Your task to perform on an android device: allow cookies in the chrome app Image 0: 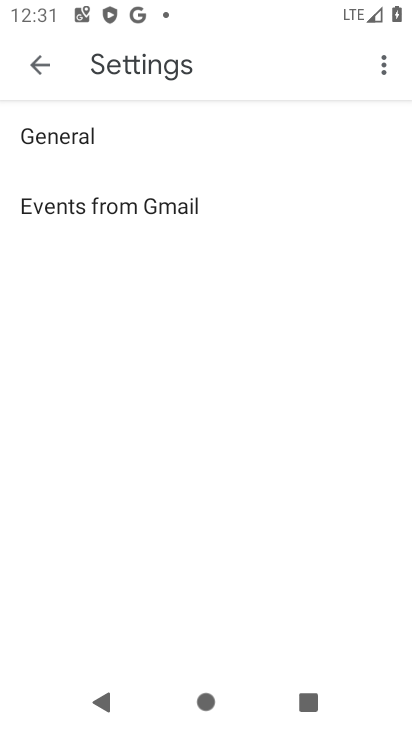
Step 0: press back button
Your task to perform on an android device: allow cookies in the chrome app Image 1: 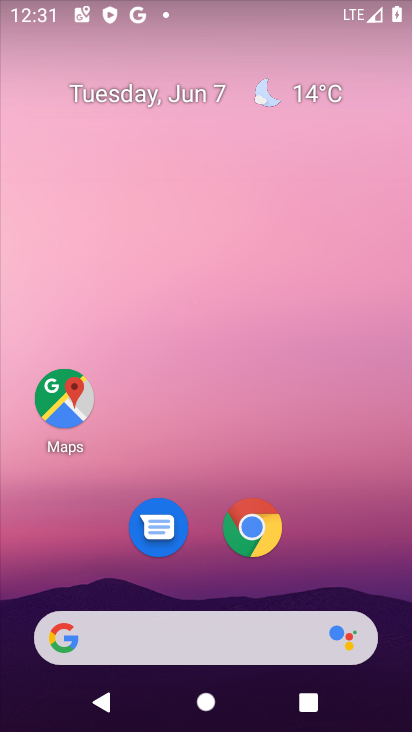
Step 1: drag from (358, 481) to (216, 0)
Your task to perform on an android device: allow cookies in the chrome app Image 2: 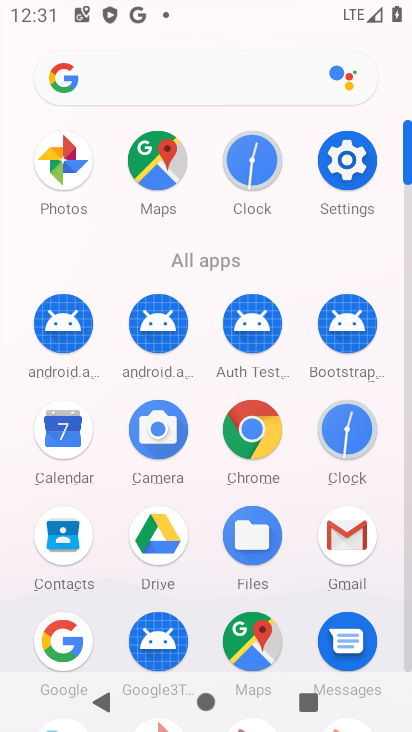
Step 2: drag from (19, 552) to (10, 259)
Your task to perform on an android device: allow cookies in the chrome app Image 3: 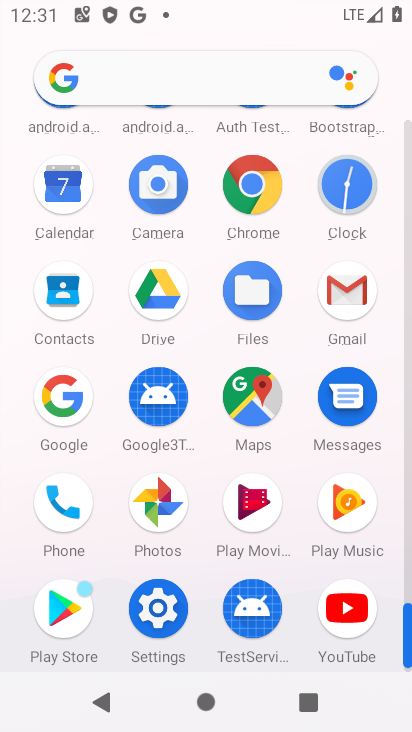
Step 3: click (250, 177)
Your task to perform on an android device: allow cookies in the chrome app Image 4: 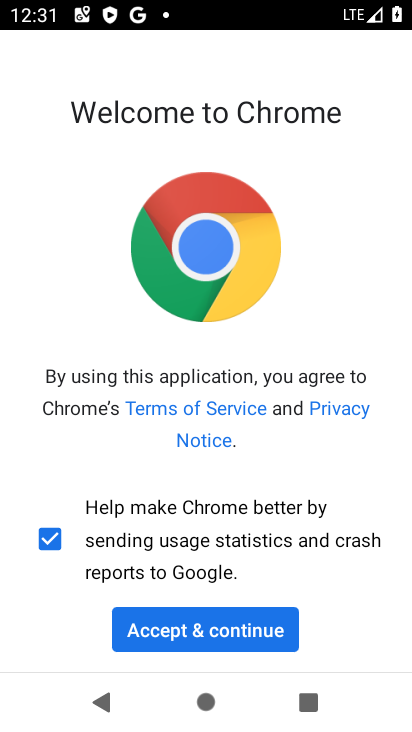
Step 4: click (173, 636)
Your task to perform on an android device: allow cookies in the chrome app Image 5: 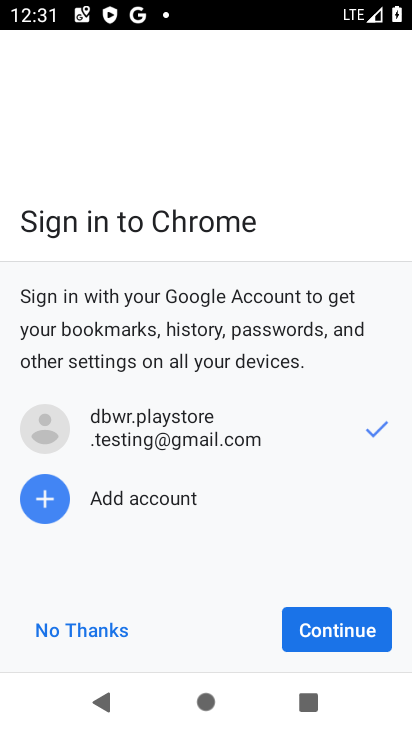
Step 5: click (319, 627)
Your task to perform on an android device: allow cookies in the chrome app Image 6: 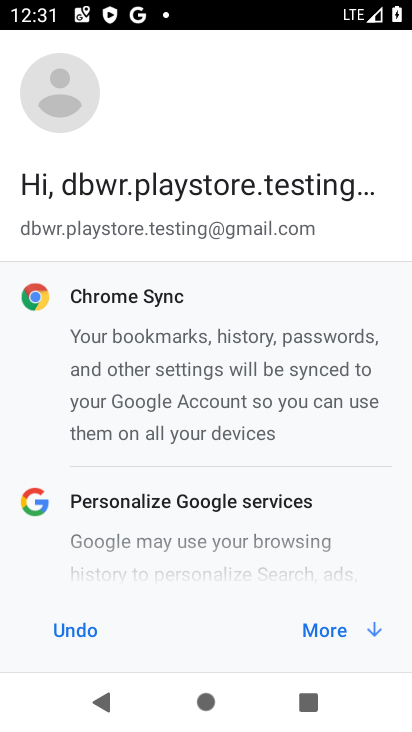
Step 6: click (332, 627)
Your task to perform on an android device: allow cookies in the chrome app Image 7: 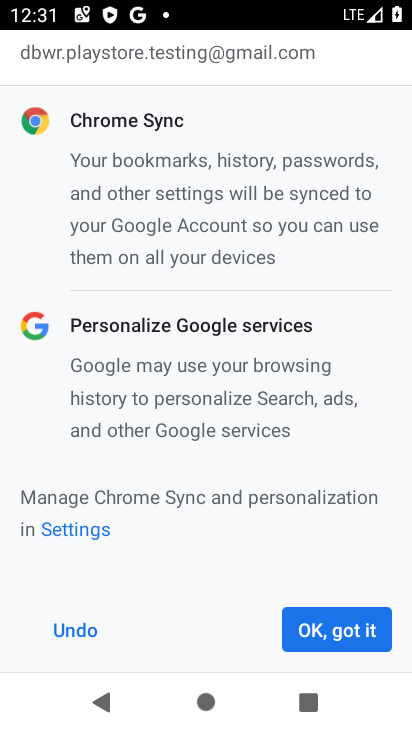
Step 7: click (332, 627)
Your task to perform on an android device: allow cookies in the chrome app Image 8: 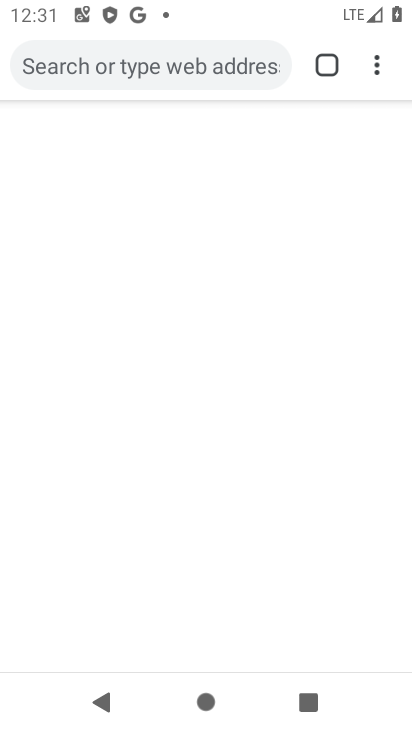
Step 8: drag from (373, 56) to (163, 549)
Your task to perform on an android device: allow cookies in the chrome app Image 9: 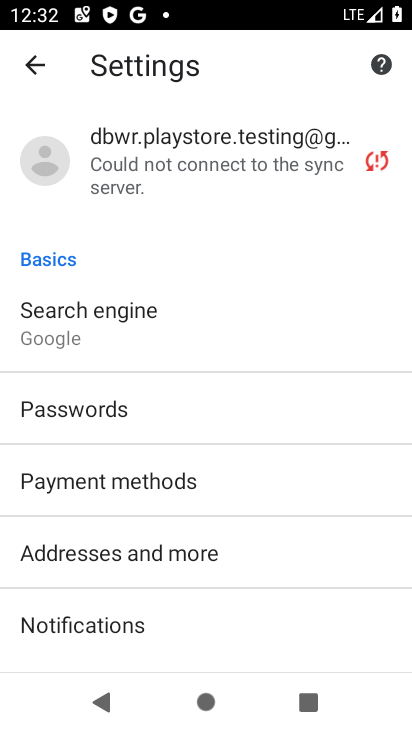
Step 9: drag from (265, 574) to (221, 245)
Your task to perform on an android device: allow cookies in the chrome app Image 10: 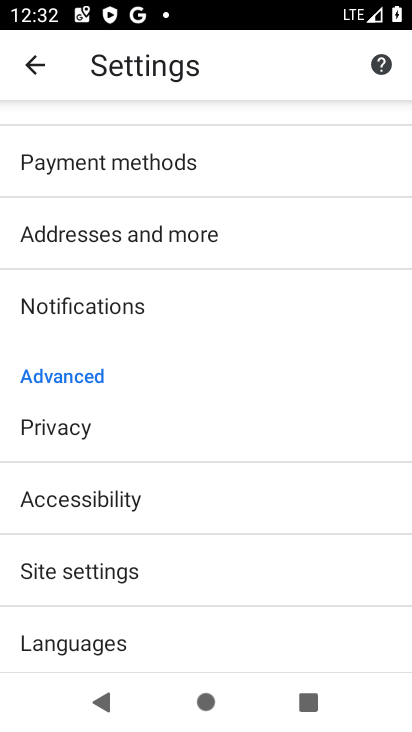
Step 10: drag from (225, 596) to (232, 208)
Your task to perform on an android device: allow cookies in the chrome app Image 11: 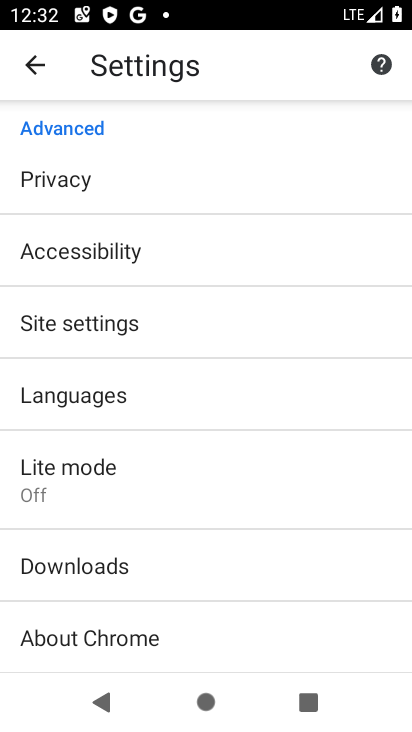
Step 11: click (156, 173)
Your task to perform on an android device: allow cookies in the chrome app Image 12: 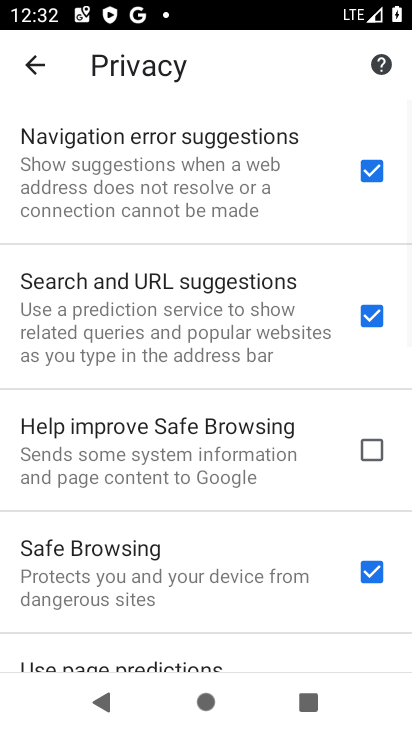
Step 12: drag from (171, 589) to (155, 158)
Your task to perform on an android device: allow cookies in the chrome app Image 13: 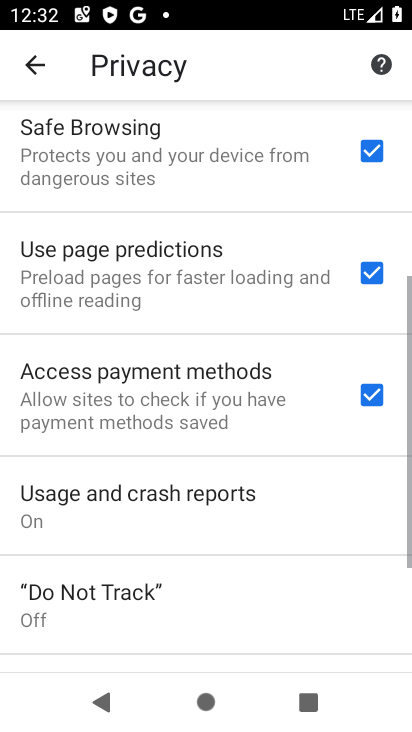
Step 13: drag from (179, 625) to (192, 197)
Your task to perform on an android device: allow cookies in the chrome app Image 14: 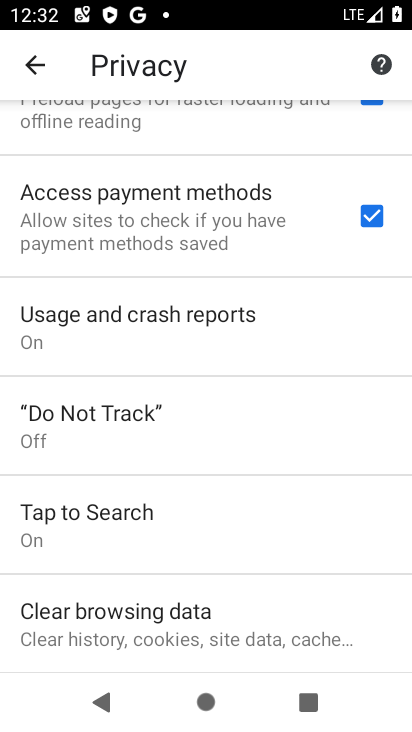
Step 14: click (156, 625)
Your task to perform on an android device: allow cookies in the chrome app Image 15: 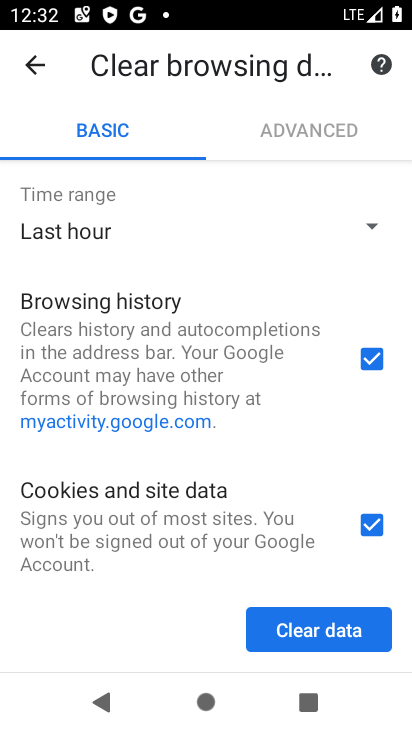
Step 15: drag from (173, 546) to (171, 255)
Your task to perform on an android device: allow cookies in the chrome app Image 16: 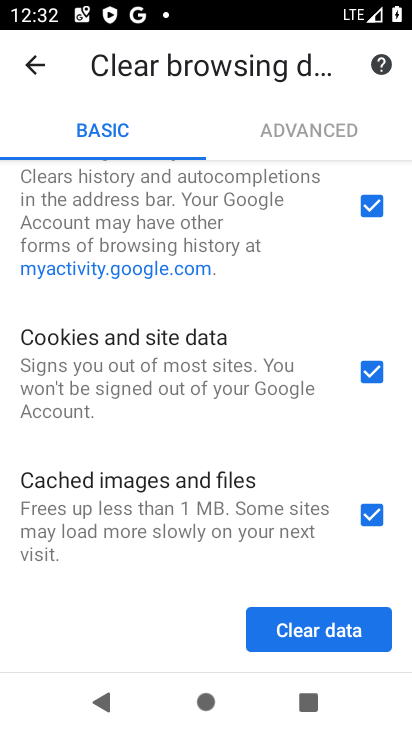
Step 16: drag from (172, 514) to (185, 270)
Your task to perform on an android device: allow cookies in the chrome app Image 17: 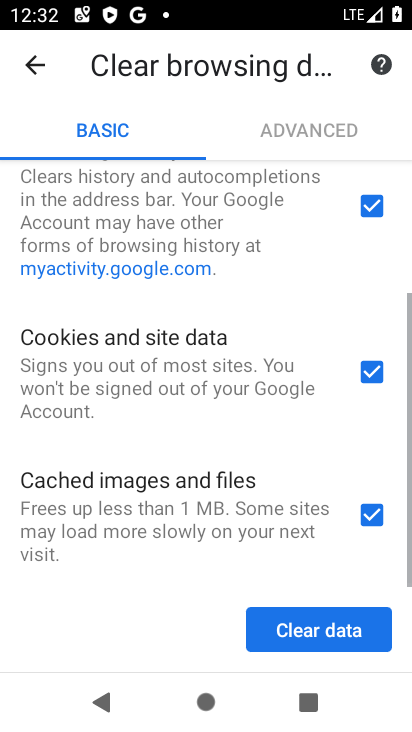
Step 17: drag from (197, 223) to (157, 570)
Your task to perform on an android device: allow cookies in the chrome app Image 18: 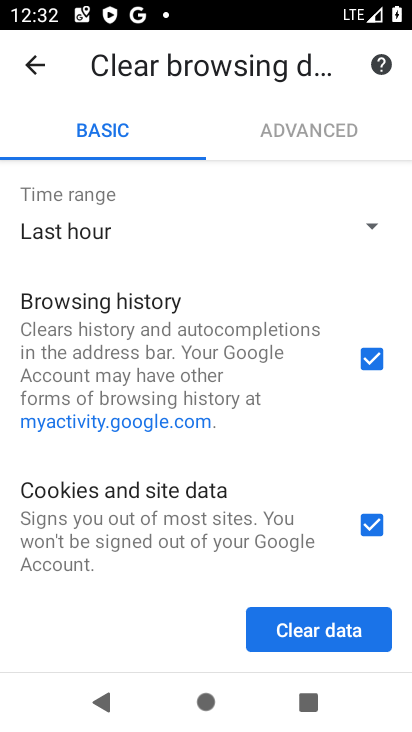
Step 18: drag from (189, 549) to (199, 253)
Your task to perform on an android device: allow cookies in the chrome app Image 19: 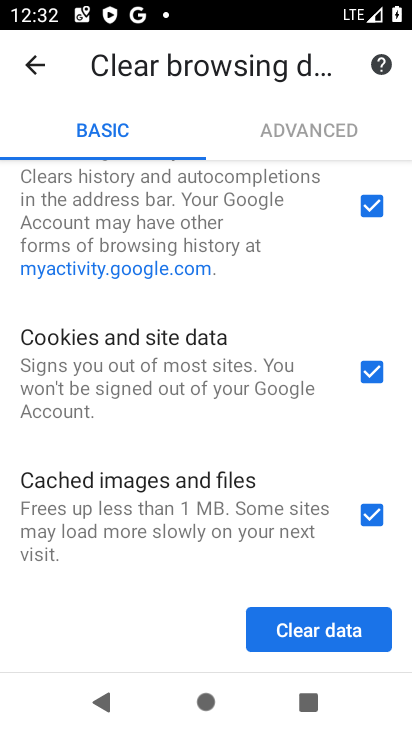
Step 19: drag from (199, 256) to (158, 500)
Your task to perform on an android device: allow cookies in the chrome app Image 20: 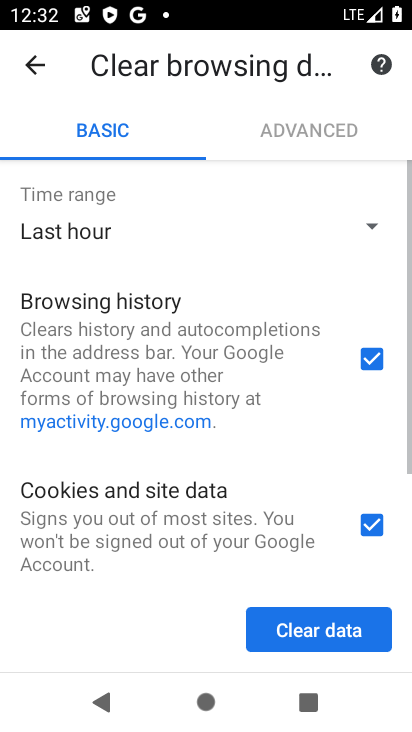
Step 20: click (303, 641)
Your task to perform on an android device: allow cookies in the chrome app Image 21: 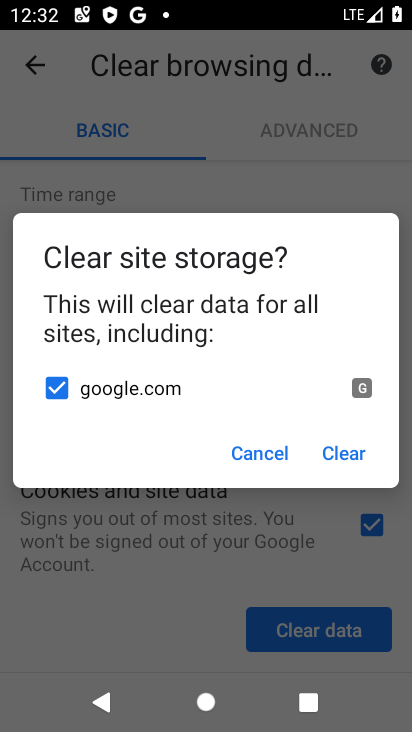
Step 21: click (350, 456)
Your task to perform on an android device: allow cookies in the chrome app Image 22: 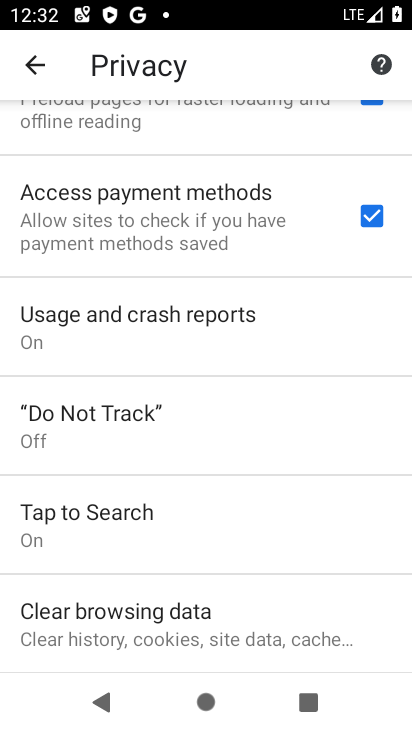
Step 22: task complete